Your task to perform on an android device: install app "Microsoft Outlook" Image 0: 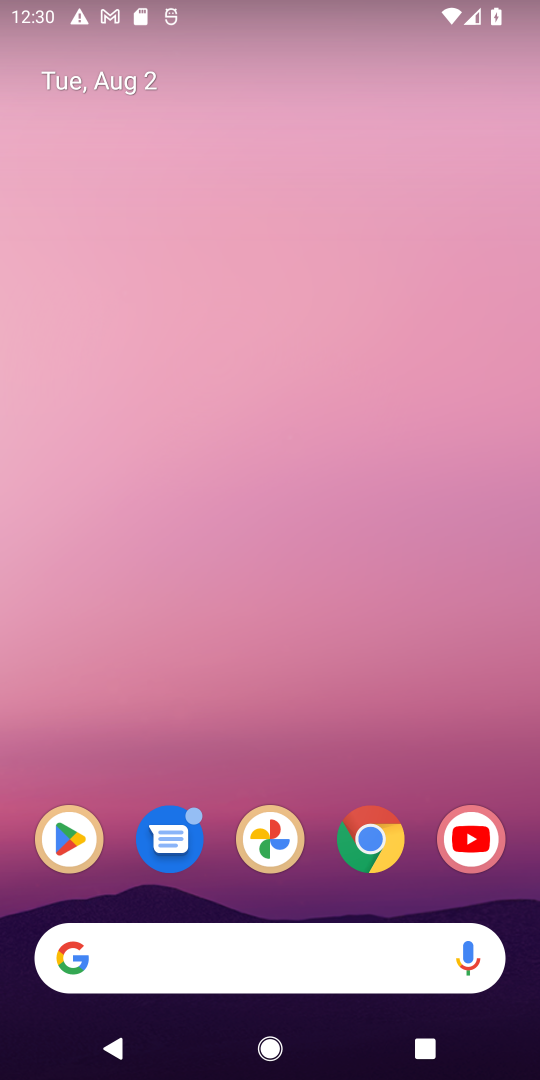
Step 0: click (57, 826)
Your task to perform on an android device: install app "Microsoft Outlook" Image 1: 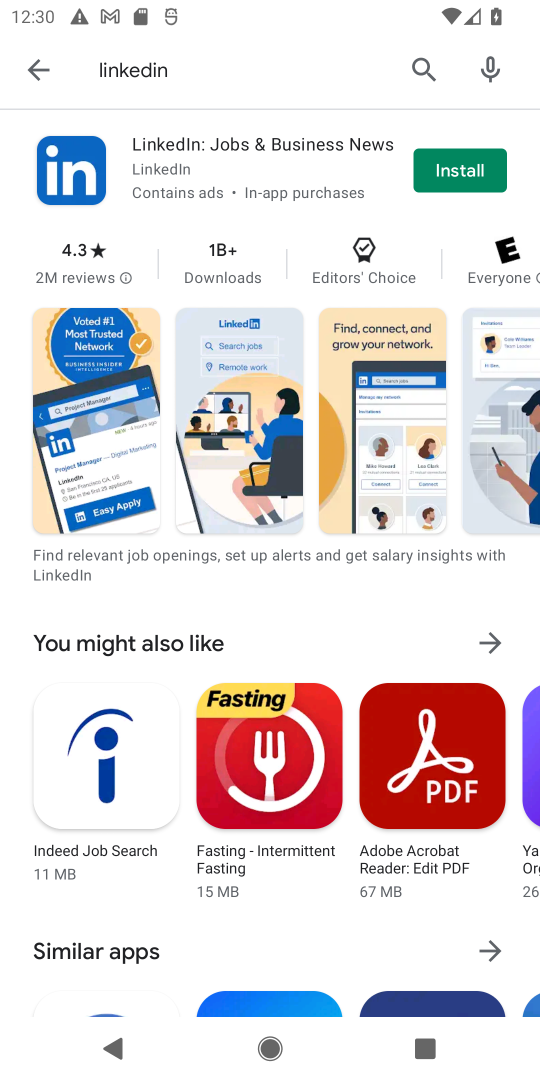
Step 1: click (410, 66)
Your task to perform on an android device: install app "Microsoft Outlook" Image 2: 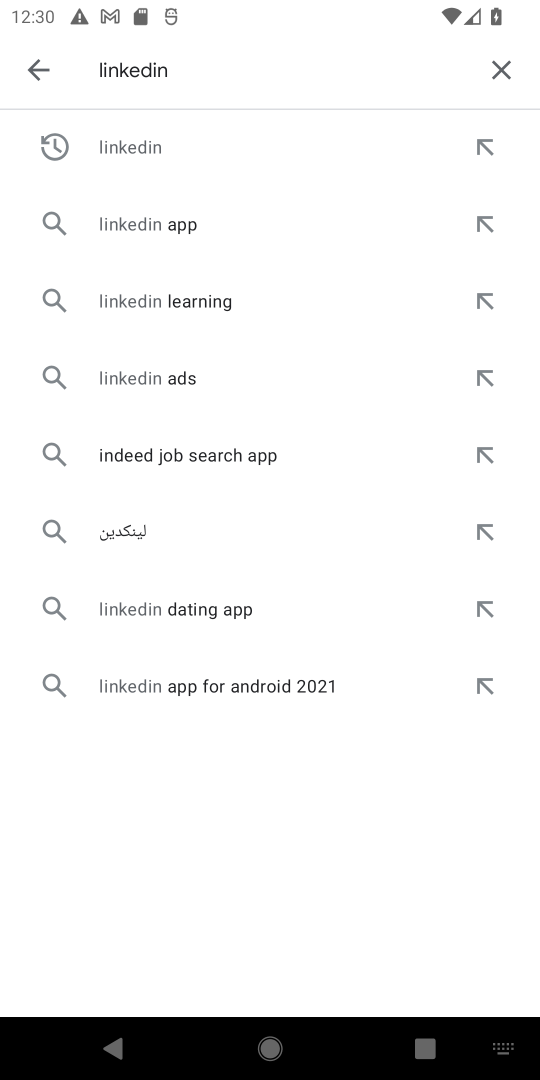
Step 2: click (494, 70)
Your task to perform on an android device: install app "Microsoft Outlook" Image 3: 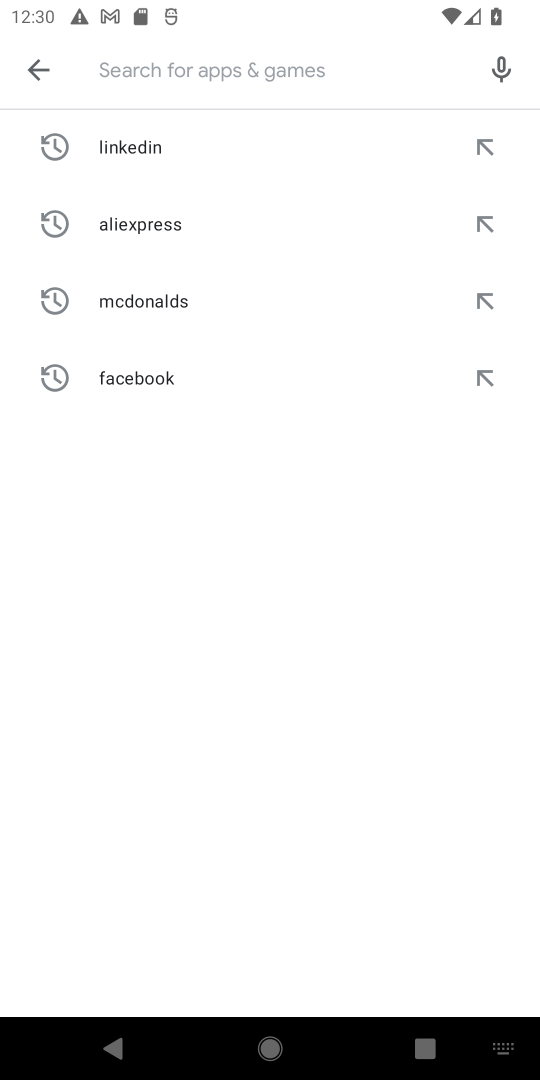
Step 3: type "microsoft outlook"
Your task to perform on an android device: install app "Microsoft Outlook" Image 4: 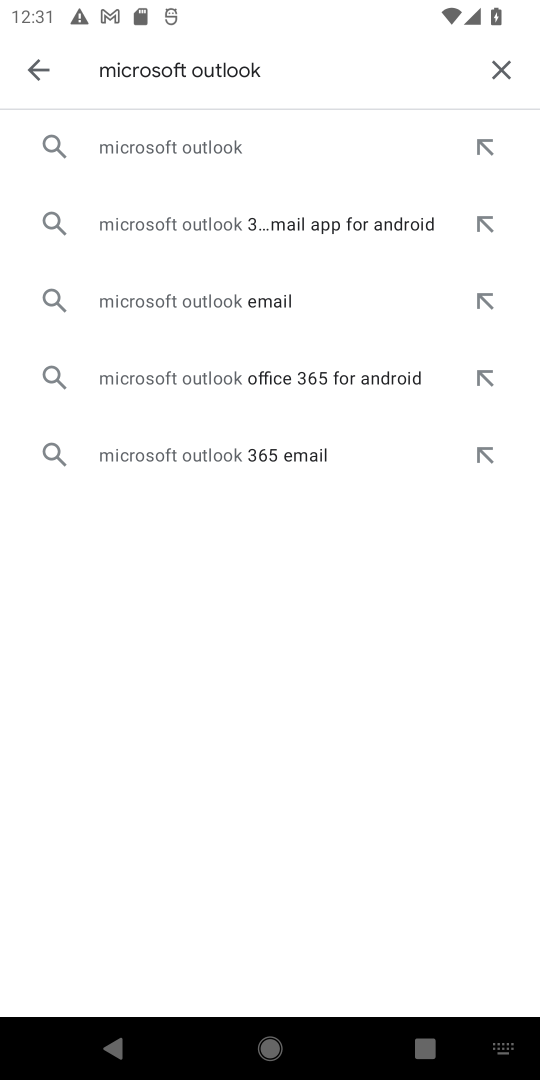
Step 4: click (112, 132)
Your task to perform on an android device: install app "Microsoft Outlook" Image 5: 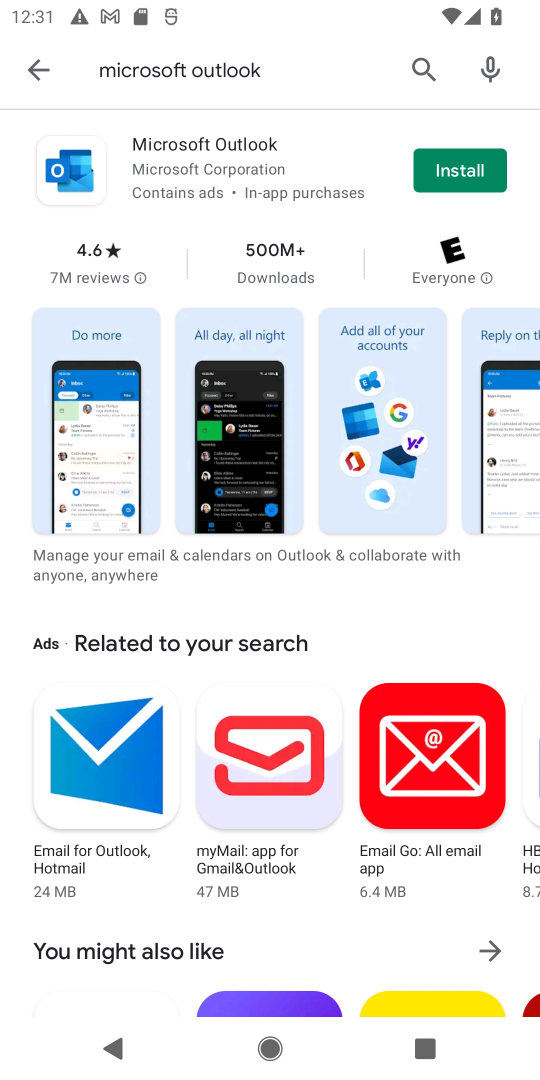
Step 5: click (484, 176)
Your task to perform on an android device: install app "Microsoft Outlook" Image 6: 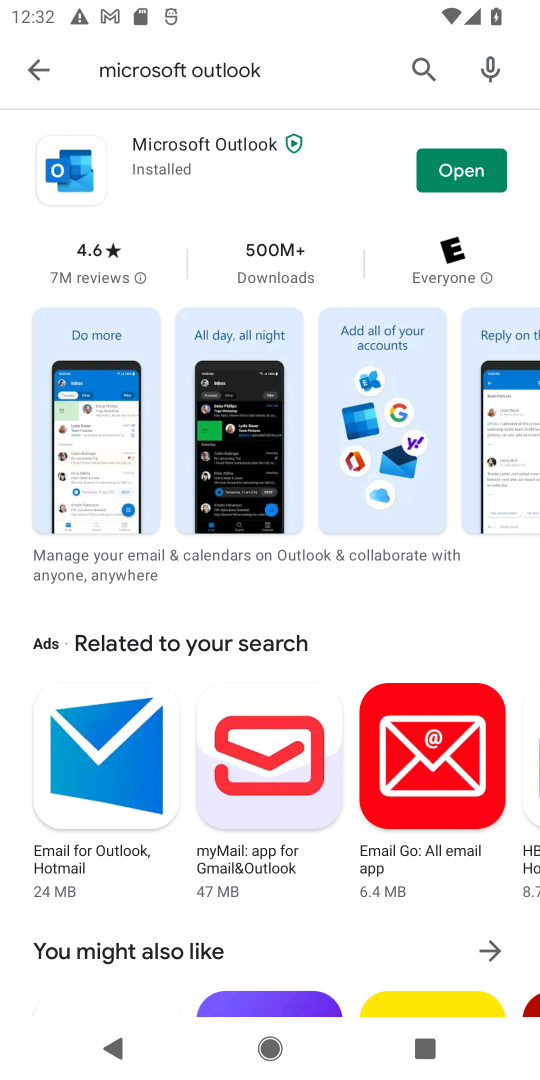
Step 6: task complete